Your task to perform on an android device: create a new album in the google photos Image 0: 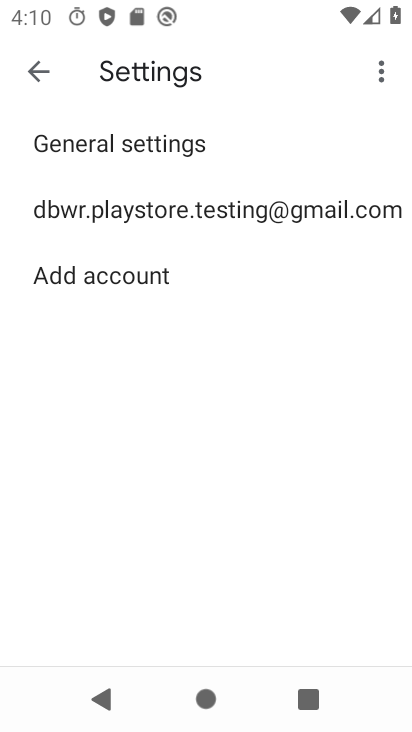
Step 0: press home button
Your task to perform on an android device: create a new album in the google photos Image 1: 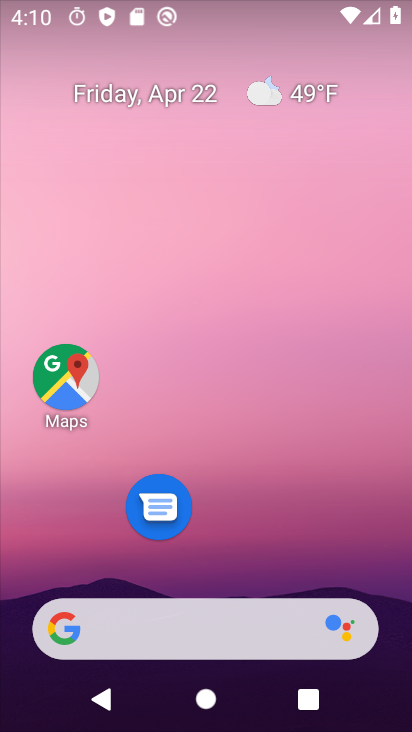
Step 1: drag from (240, 505) to (291, 100)
Your task to perform on an android device: create a new album in the google photos Image 2: 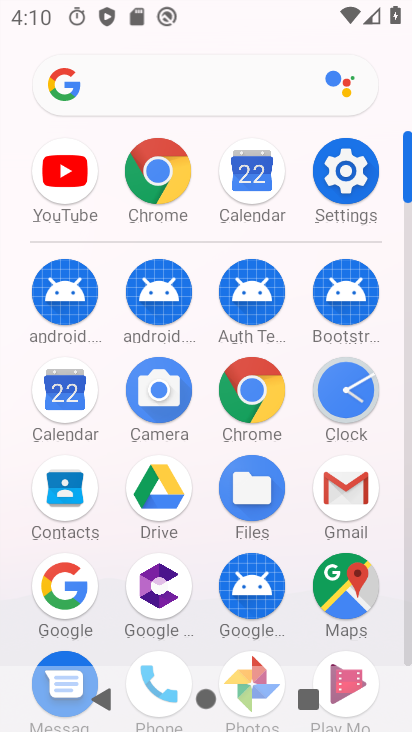
Step 2: drag from (210, 589) to (276, 228)
Your task to perform on an android device: create a new album in the google photos Image 3: 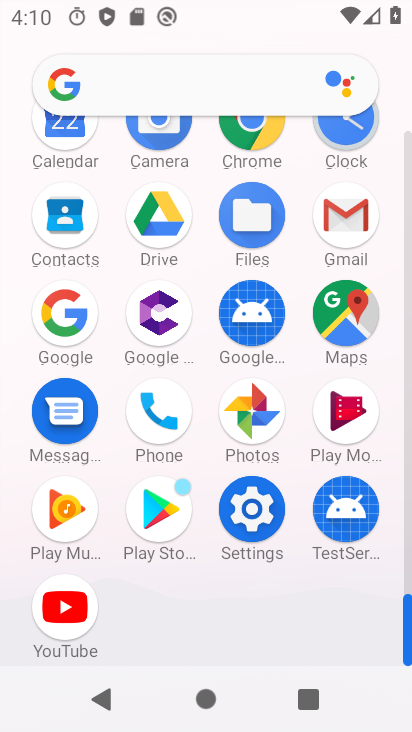
Step 3: click (245, 424)
Your task to perform on an android device: create a new album in the google photos Image 4: 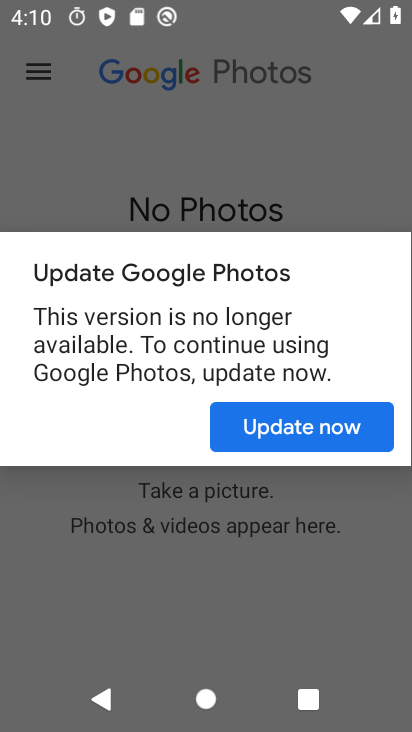
Step 4: click (250, 432)
Your task to perform on an android device: create a new album in the google photos Image 5: 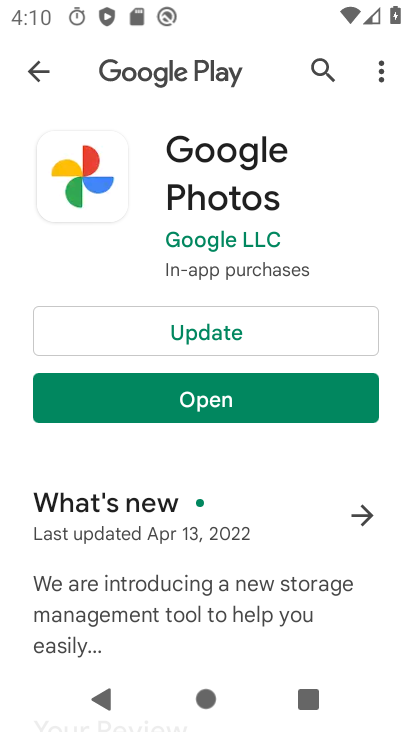
Step 5: click (202, 330)
Your task to perform on an android device: create a new album in the google photos Image 6: 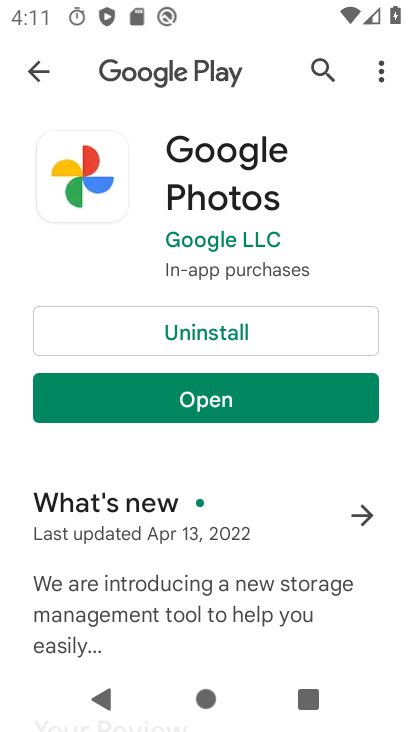
Step 6: click (195, 405)
Your task to perform on an android device: create a new album in the google photos Image 7: 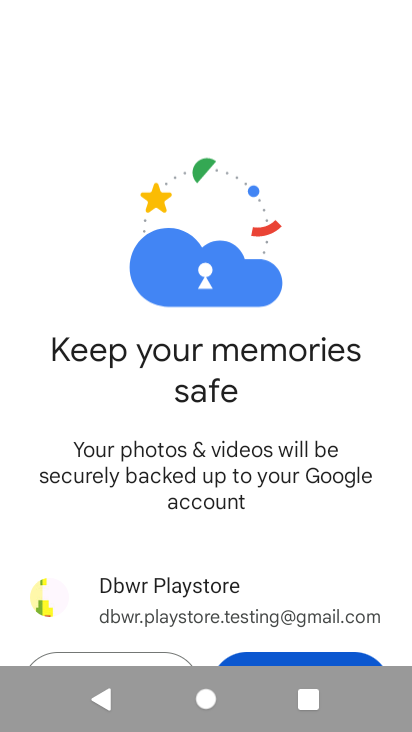
Step 7: drag from (222, 541) to (293, 69)
Your task to perform on an android device: create a new album in the google photos Image 8: 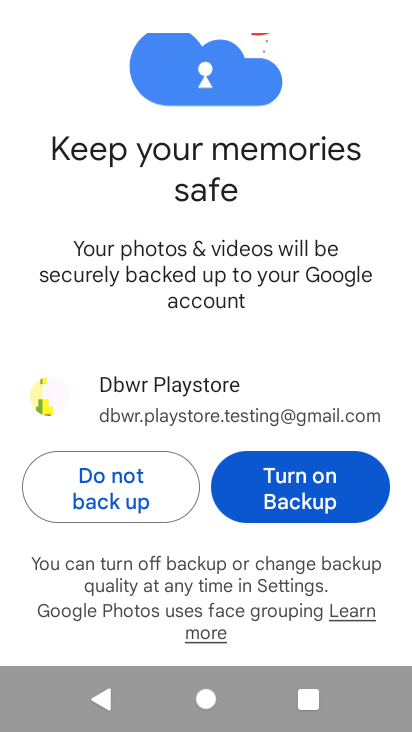
Step 8: click (99, 482)
Your task to perform on an android device: create a new album in the google photos Image 9: 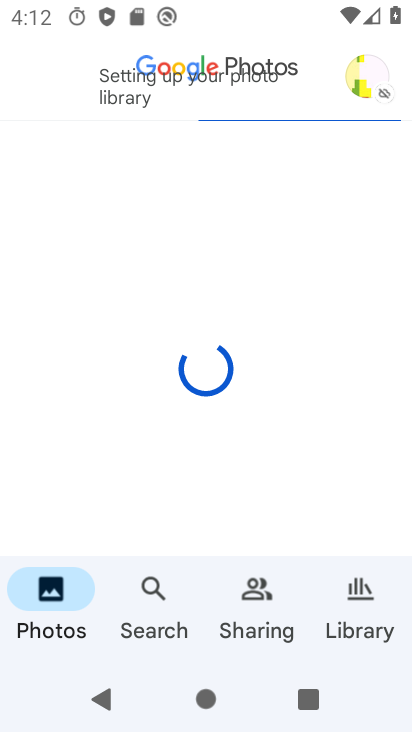
Step 9: click (343, 611)
Your task to perform on an android device: create a new album in the google photos Image 10: 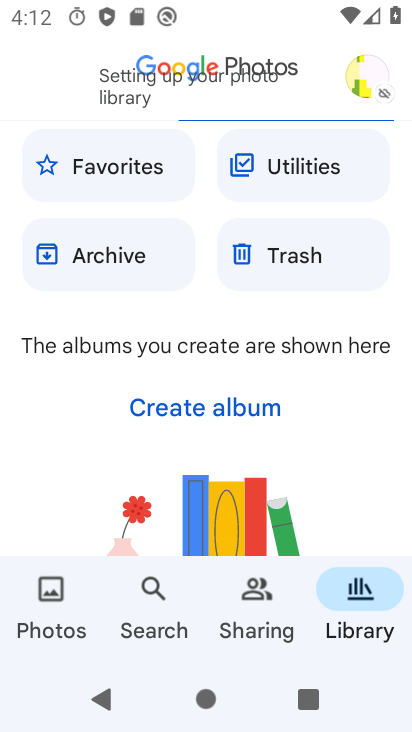
Step 10: click (261, 613)
Your task to perform on an android device: create a new album in the google photos Image 11: 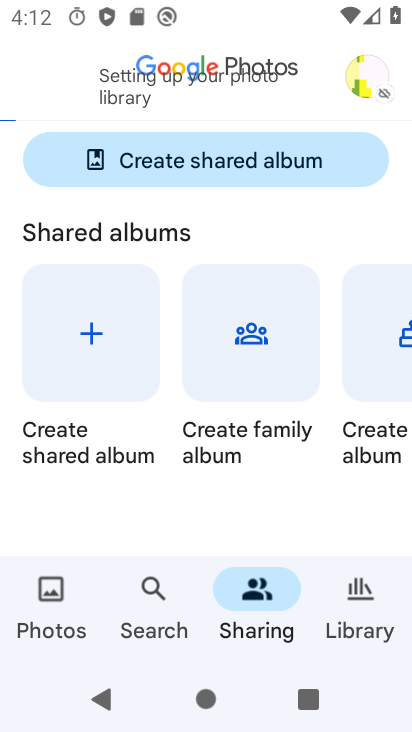
Step 11: click (92, 321)
Your task to perform on an android device: create a new album in the google photos Image 12: 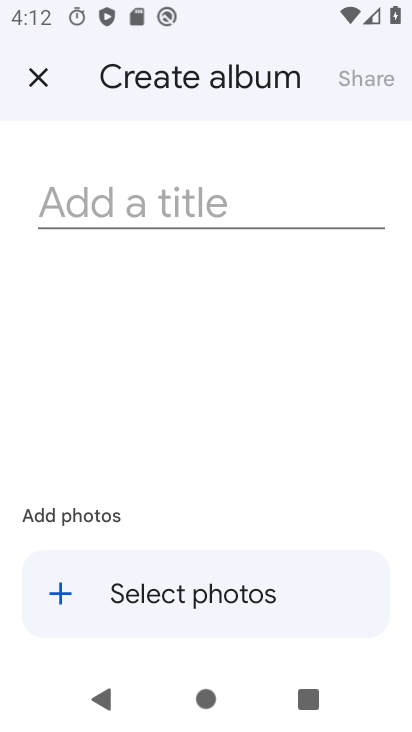
Step 12: click (172, 186)
Your task to perform on an android device: create a new album in the google photos Image 13: 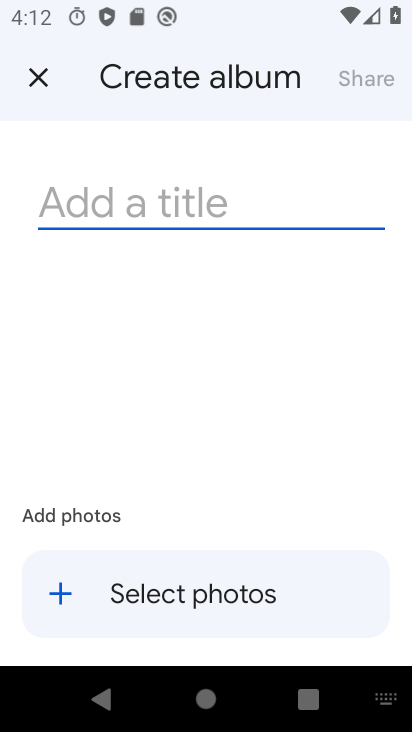
Step 13: type "ghh"
Your task to perform on an android device: create a new album in the google photos Image 14: 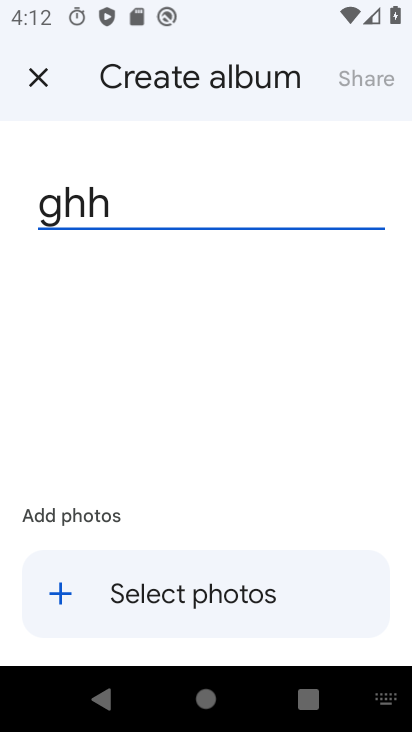
Step 14: click (175, 585)
Your task to perform on an android device: create a new album in the google photos Image 15: 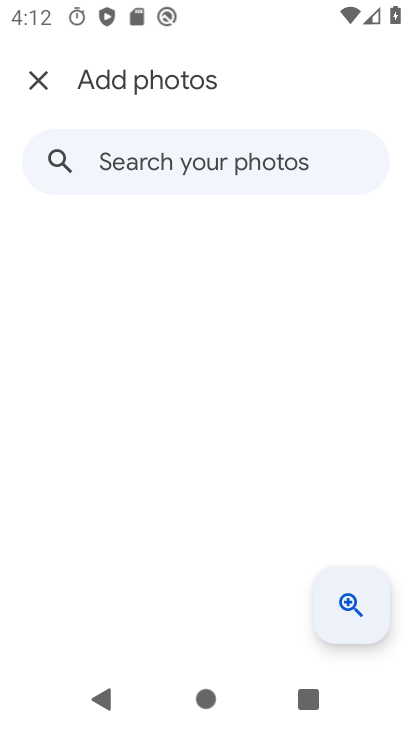
Step 15: click (151, 162)
Your task to perform on an android device: create a new album in the google photos Image 16: 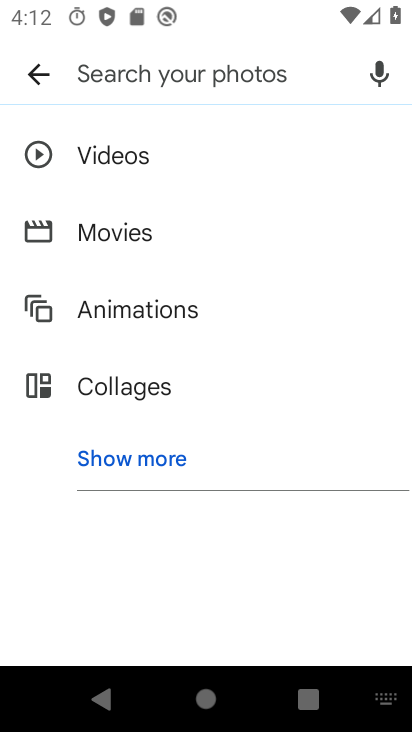
Step 16: click (136, 459)
Your task to perform on an android device: create a new album in the google photos Image 17: 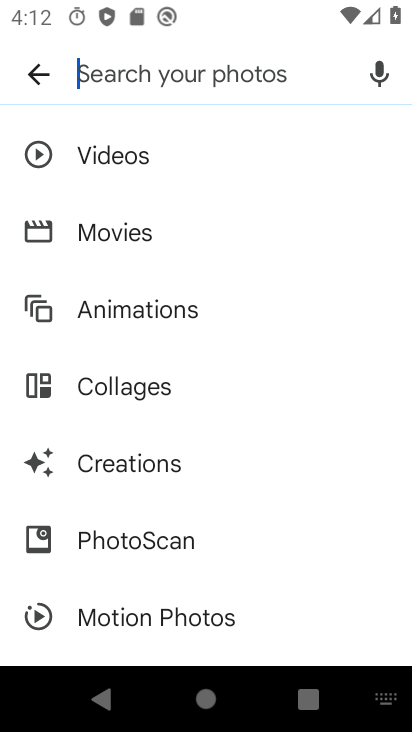
Step 17: drag from (157, 531) to (208, 163)
Your task to perform on an android device: create a new album in the google photos Image 18: 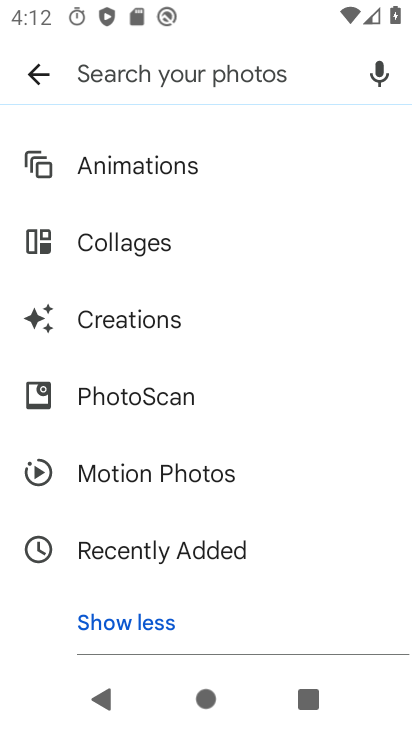
Step 18: click (172, 563)
Your task to perform on an android device: create a new album in the google photos Image 19: 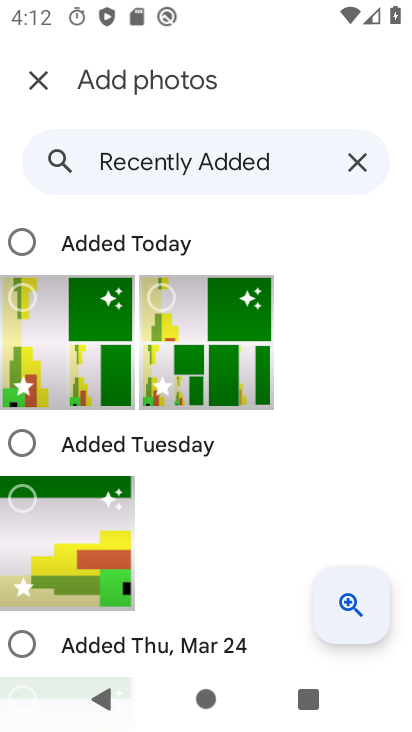
Step 19: click (17, 226)
Your task to perform on an android device: create a new album in the google photos Image 20: 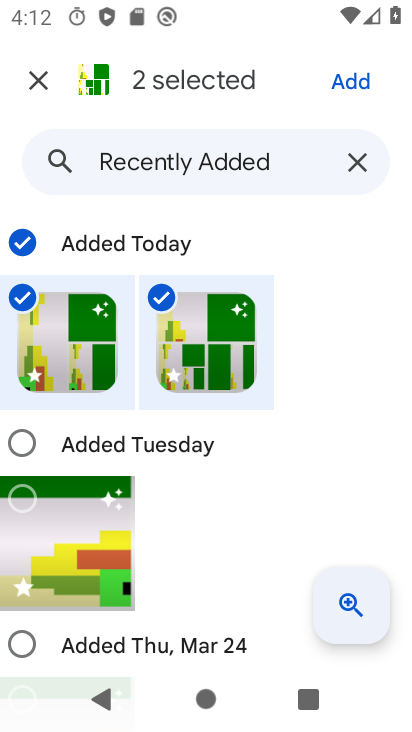
Step 20: click (23, 448)
Your task to perform on an android device: create a new album in the google photos Image 21: 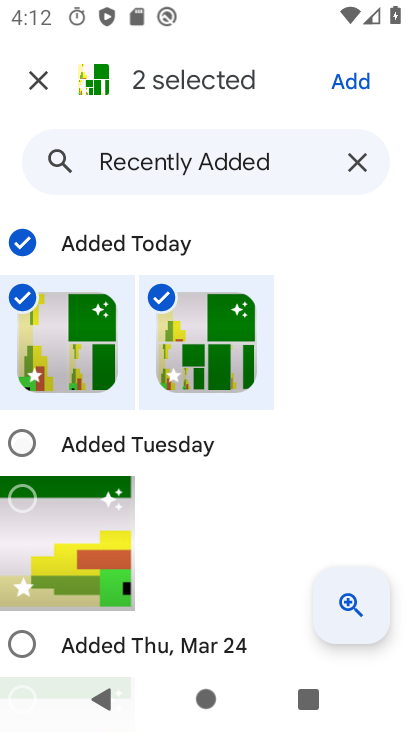
Step 21: click (348, 81)
Your task to perform on an android device: create a new album in the google photos Image 22: 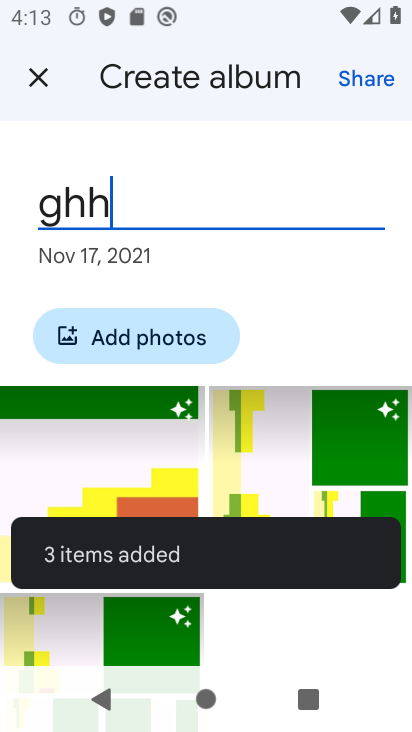
Step 22: task complete